Your task to perform on an android device: turn off location Image 0: 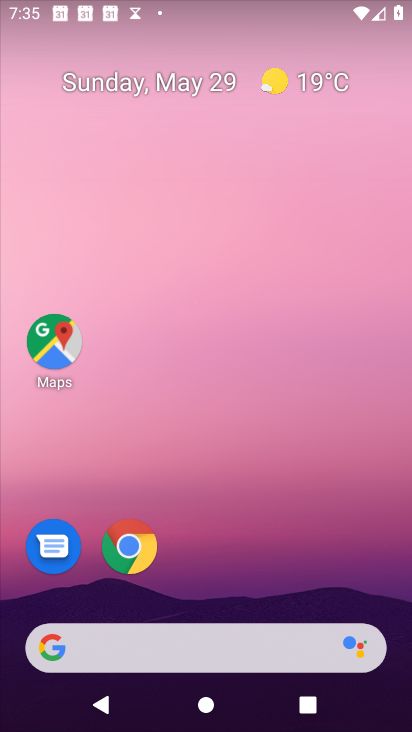
Step 0: drag from (223, 569) to (275, 10)
Your task to perform on an android device: turn off location Image 1: 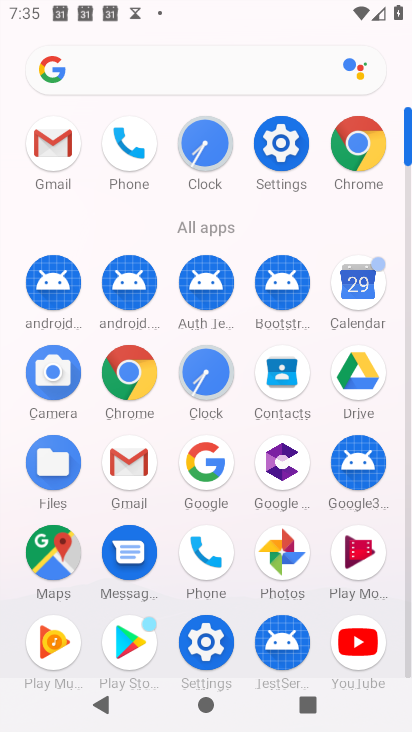
Step 1: click (275, 181)
Your task to perform on an android device: turn off location Image 2: 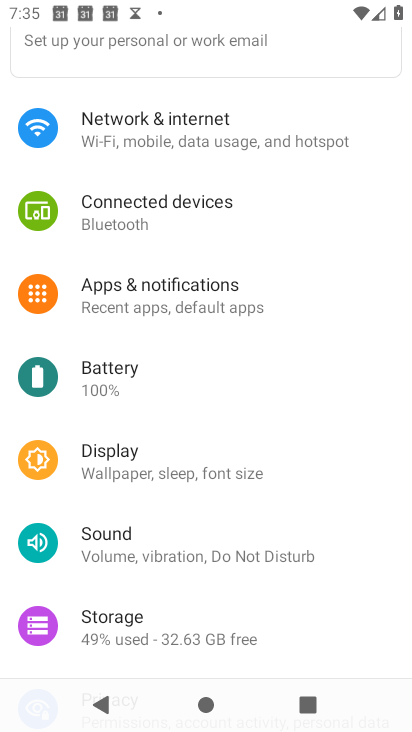
Step 2: drag from (150, 466) to (215, 155)
Your task to perform on an android device: turn off location Image 3: 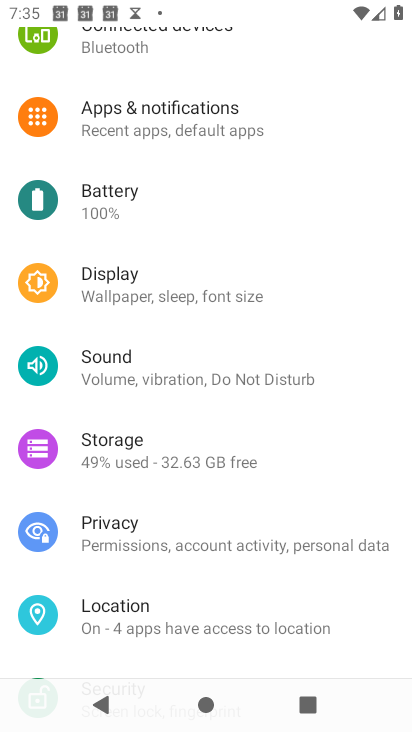
Step 3: click (116, 614)
Your task to perform on an android device: turn off location Image 4: 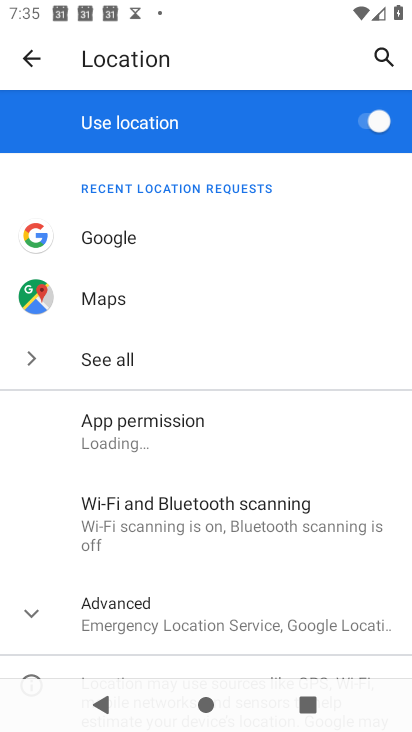
Step 4: click (372, 122)
Your task to perform on an android device: turn off location Image 5: 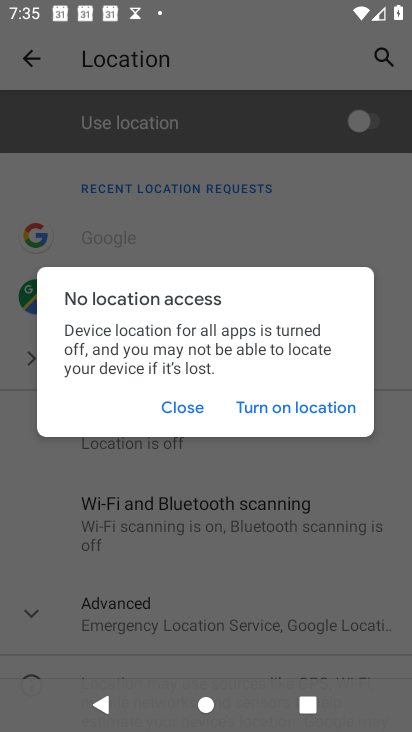
Step 5: task complete